Your task to perform on an android device: Go to internet settings Image 0: 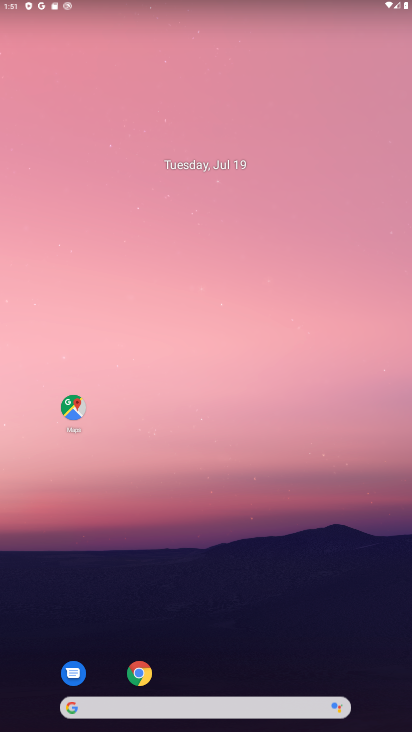
Step 0: drag from (302, 591) to (223, 149)
Your task to perform on an android device: Go to internet settings Image 1: 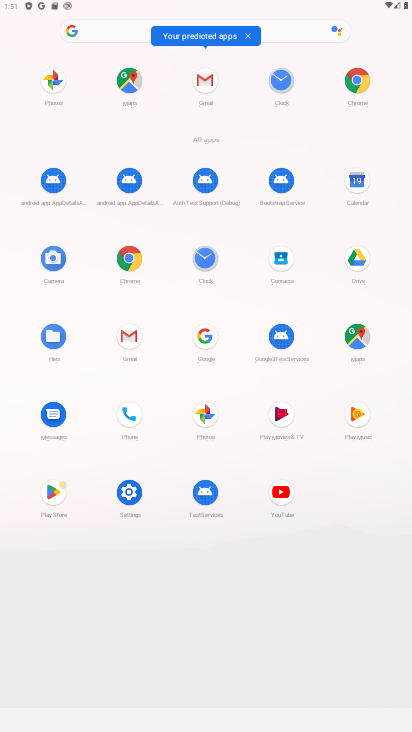
Step 1: click (130, 491)
Your task to perform on an android device: Go to internet settings Image 2: 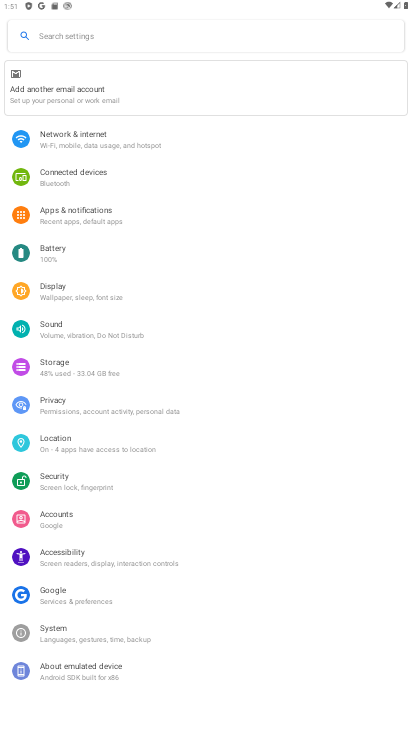
Step 2: click (140, 126)
Your task to perform on an android device: Go to internet settings Image 3: 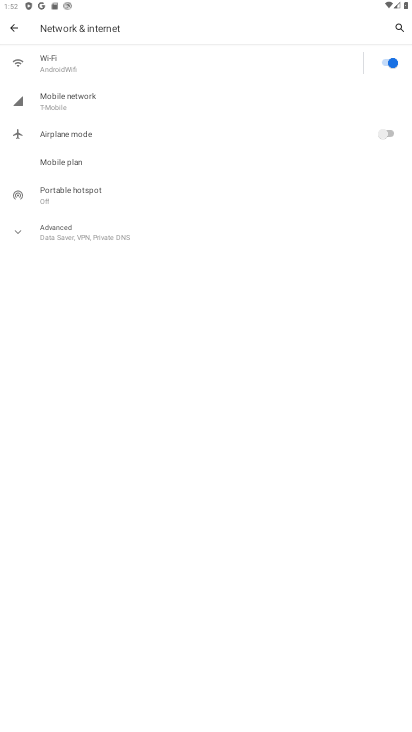
Step 3: task complete